Your task to perform on an android device: turn off improve location accuracy Image 0: 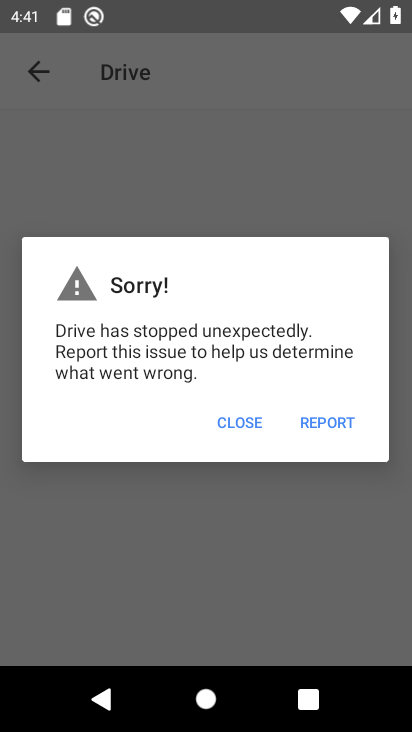
Step 0: press home button
Your task to perform on an android device: turn off improve location accuracy Image 1: 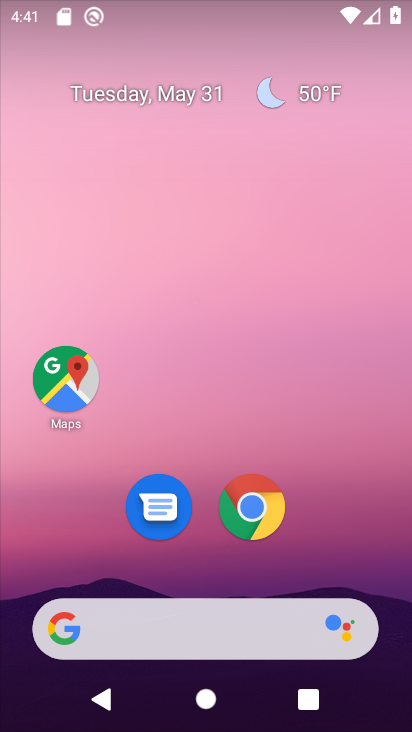
Step 1: drag from (314, 580) to (261, 28)
Your task to perform on an android device: turn off improve location accuracy Image 2: 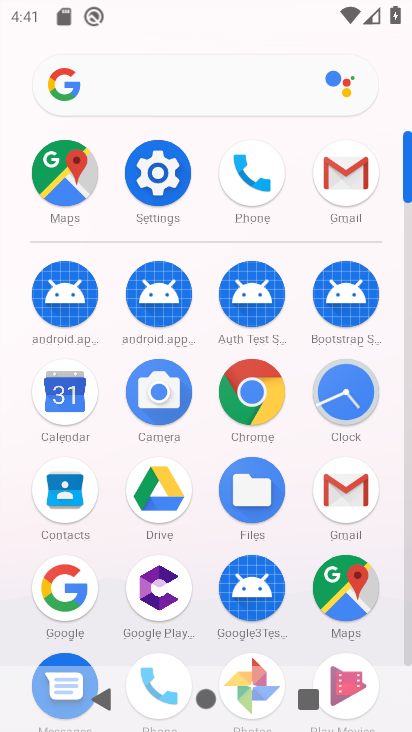
Step 2: click (162, 161)
Your task to perform on an android device: turn off improve location accuracy Image 3: 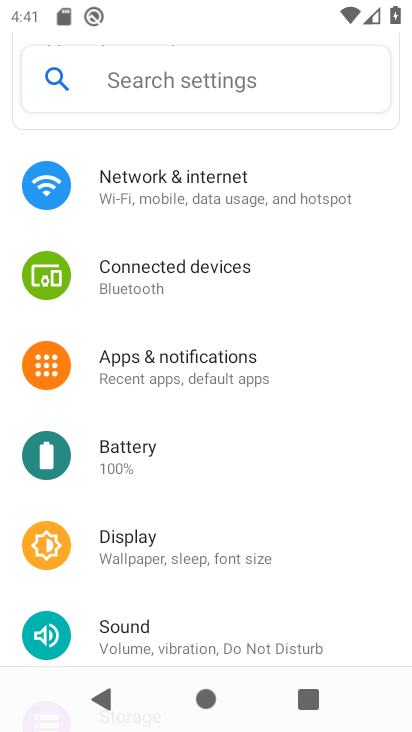
Step 3: drag from (207, 490) to (232, 169)
Your task to perform on an android device: turn off improve location accuracy Image 4: 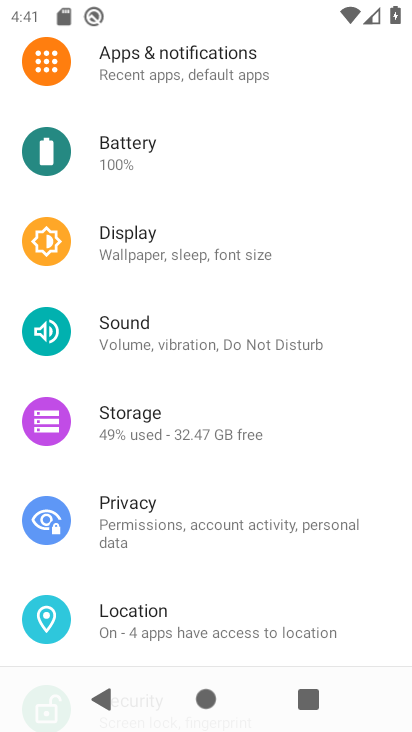
Step 4: click (215, 604)
Your task to perform on an android device: turn off improve location accuracy Image 5: 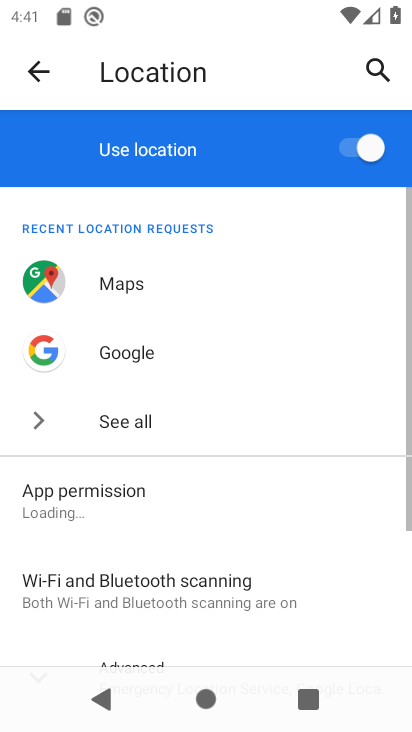
Step 5: drag from (263, 545) to (292, 226)
Your task to perform on an android device: turn off improve location accuracy Image 6: 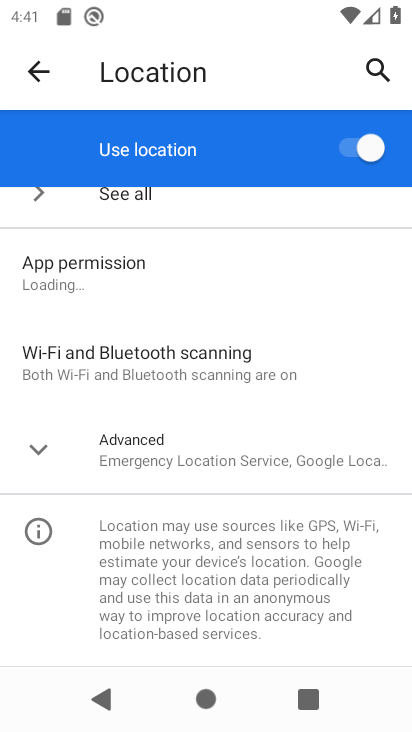
Step 6: click (43, 444)
Your task to perform on an android device: turn off improve location accuracy Image 7: 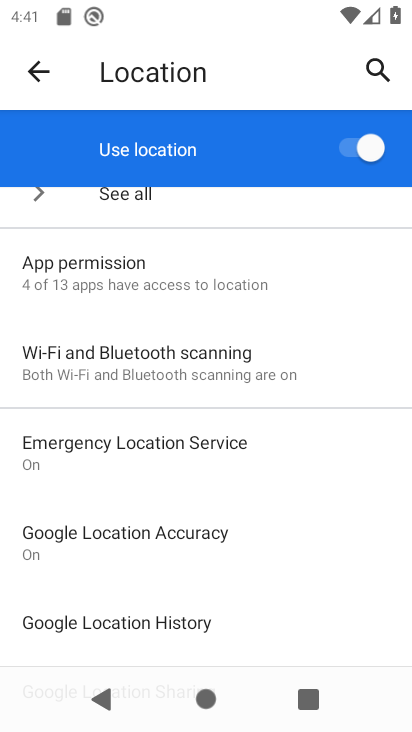
Step 7: click (136, 535)
Your task to perform on an android device: turn off improve location accuracy Image 8: 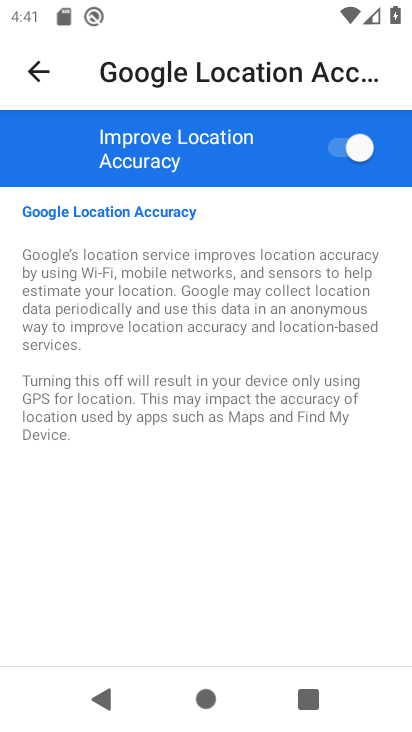
Step 8: click (345, 148)
Your task to perform on an android device: turn off improve location accuracy Image 9: 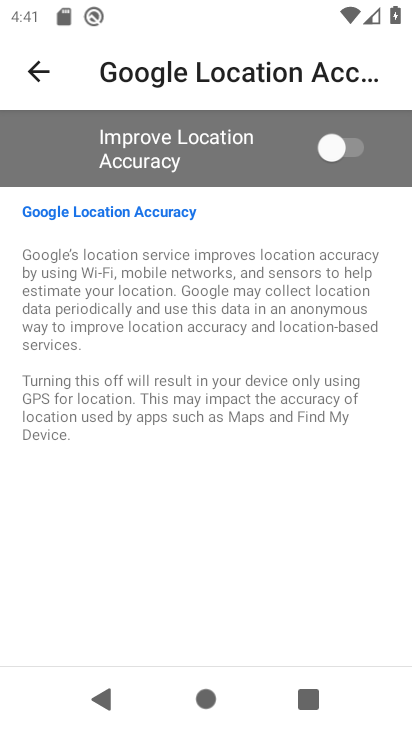
Step 9: task complete